Your task to perform on an android device: Open Android settings Image 0: 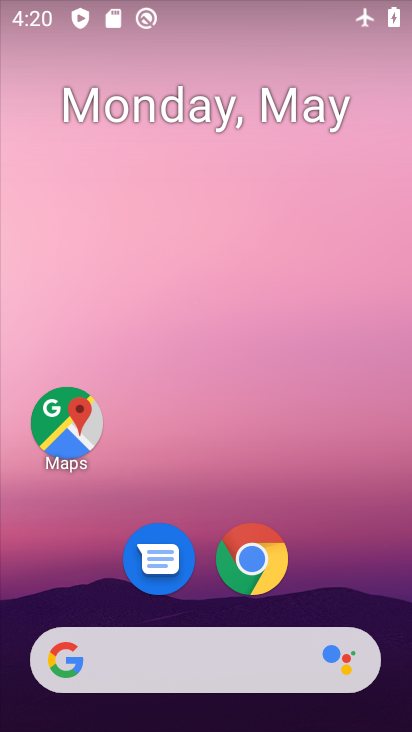
Step 0: drag from (336, 480) to (238, 1)
Your task to perform on an android device: Open Android settings Image 1: 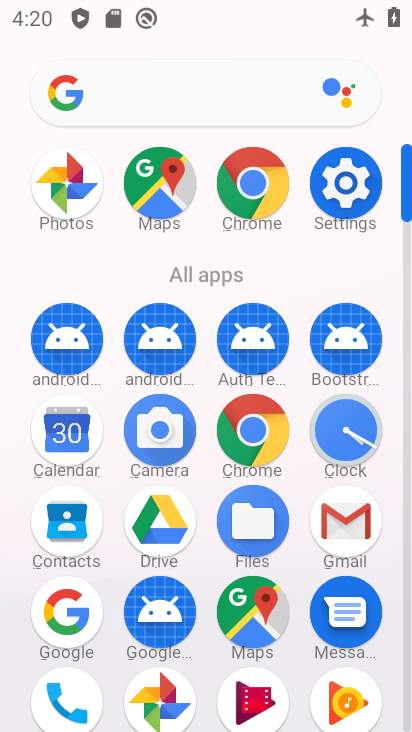
Step 1: drag from (7, 598) to (15, 328)
Your task to perform on an android device: Open Android settings Image 2: 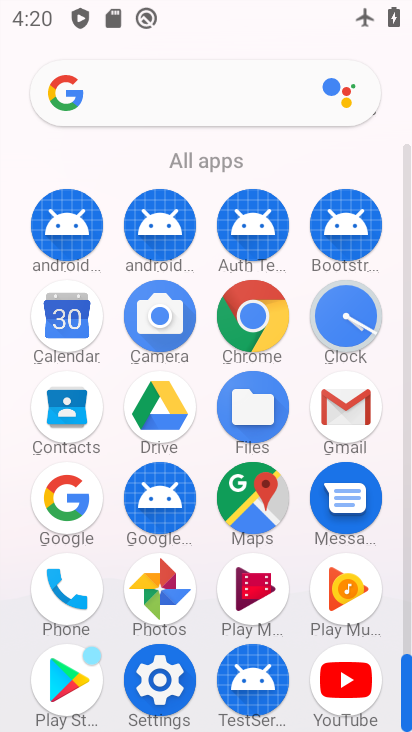
Step 2: click (159, 678)
Your task to perform on an android device: Open Android settings Image 3: 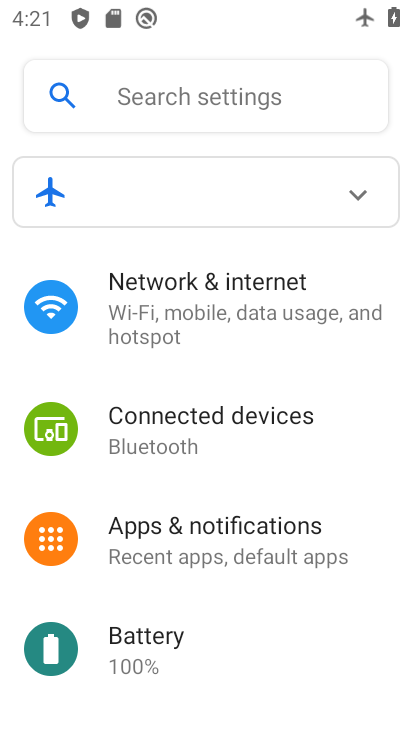
Step 3: task complete